Your task to perform on an android device: visit the assistant section in the google photos Image 0: 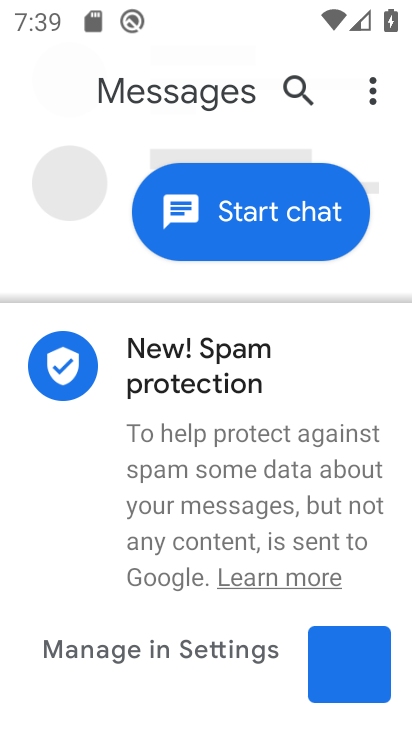
Step 0: press home button
Your task to perform on an android device: visit the assistant section in the google photos Image 1: 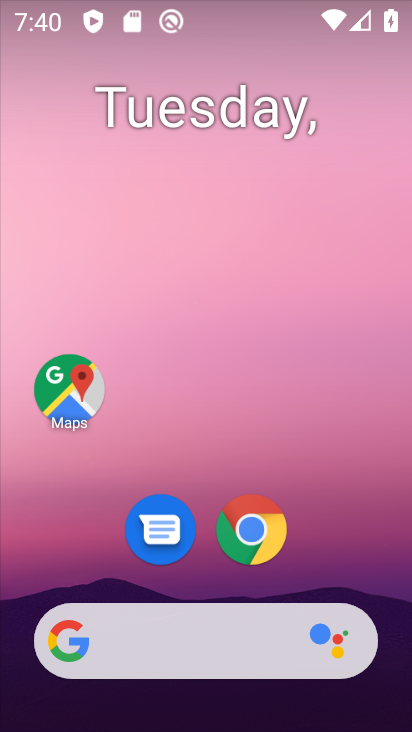
Step 1: drag from (233, 418) to (296, 48)
Your task to perform on an android device: visit the assistant section in the google photos Image 2: 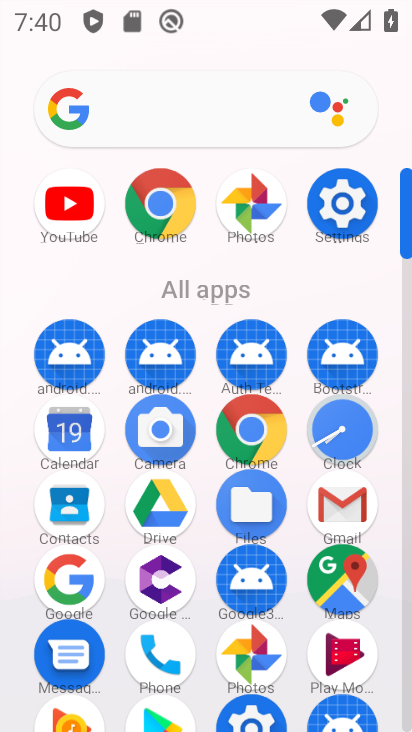
Step 2: click (258, 209)
Your task to perform on an android device: visit the assistant section in the google photos Image 3: 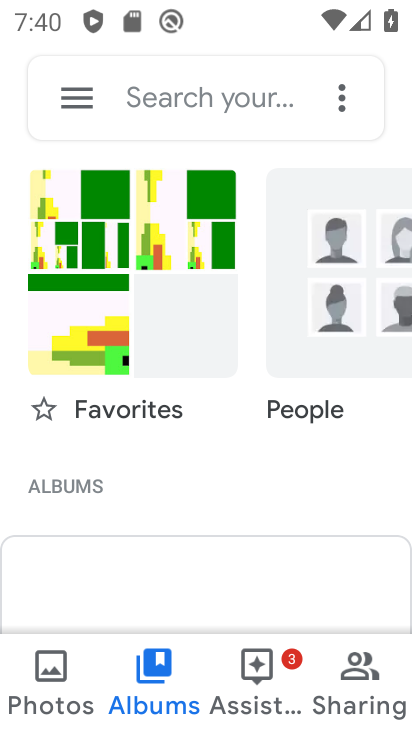
Step 3: click (253, 672)
Your task to perform on an android device: visit the assistant section in the google photos Image 4: 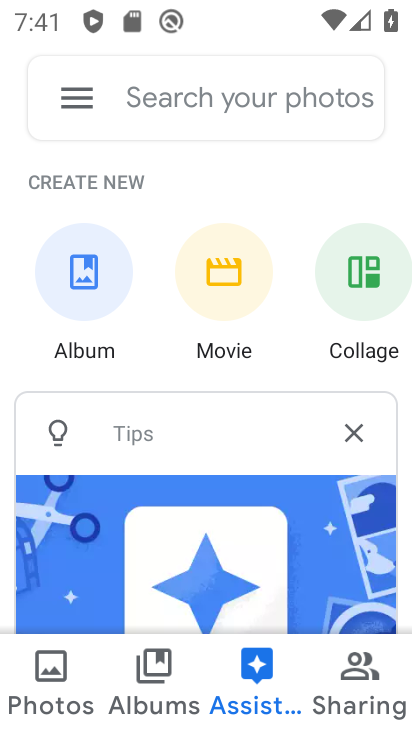
Step 4: task complete